Your task to perform on an android device: Search for Italian restaurants on Maps Image 0: 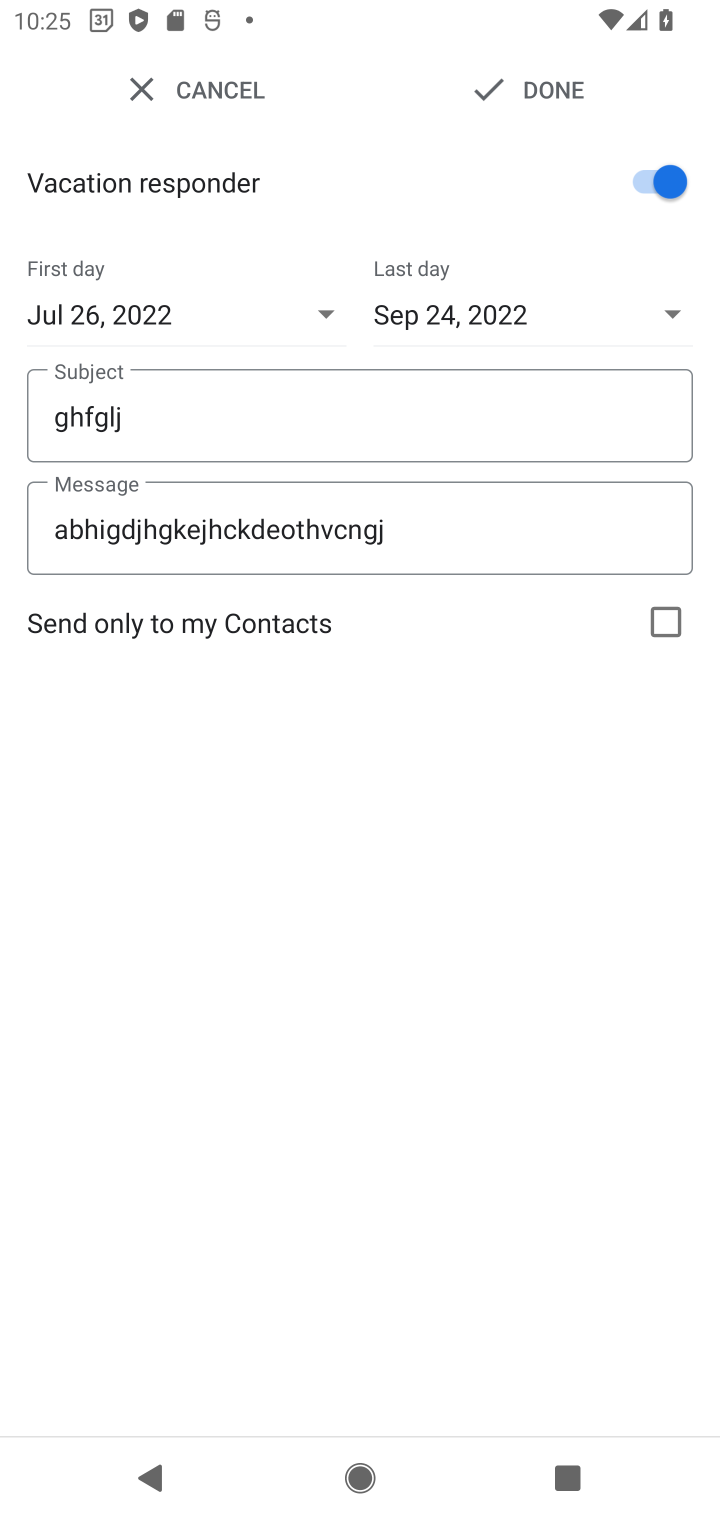
Step 0: press home button
Your task to perform on an android device: Search for Italian restaurants on Maps Image 1: 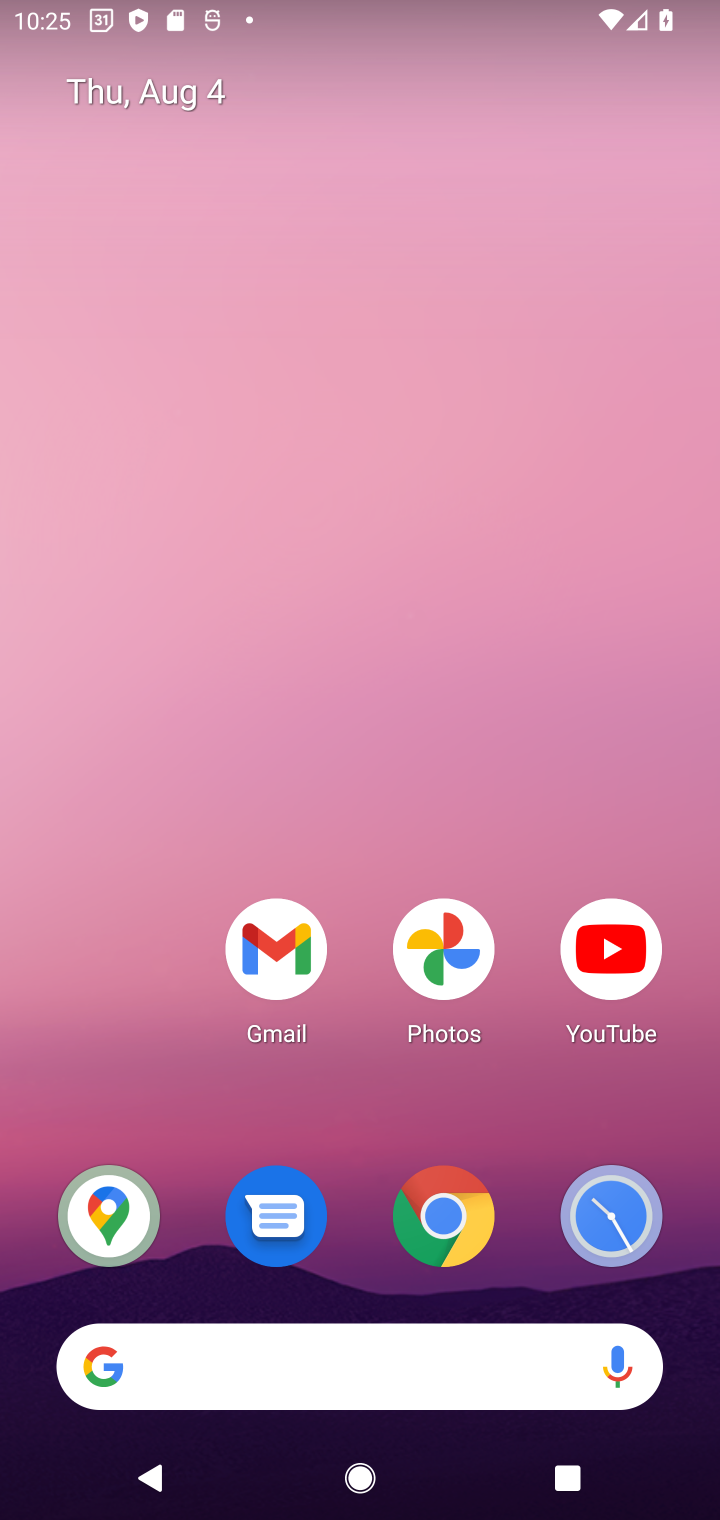
Step 1: click (110, 1203)
Your task to perform on an android device: Search for Italian restaurants on Maps Image 2: 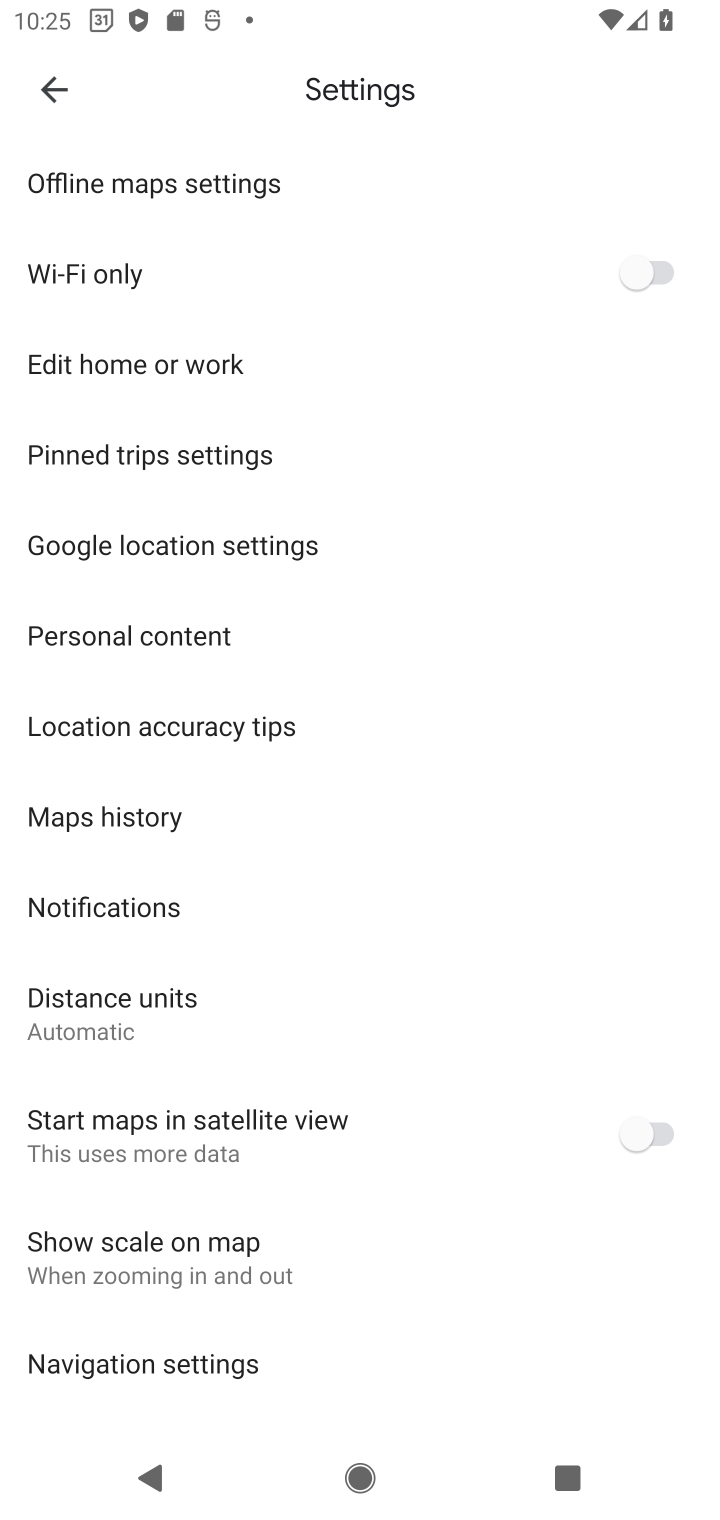
Step 2: click (60, 97)
Your task to perform on an android device: Search for Italian restaurants on Maps Image 3: 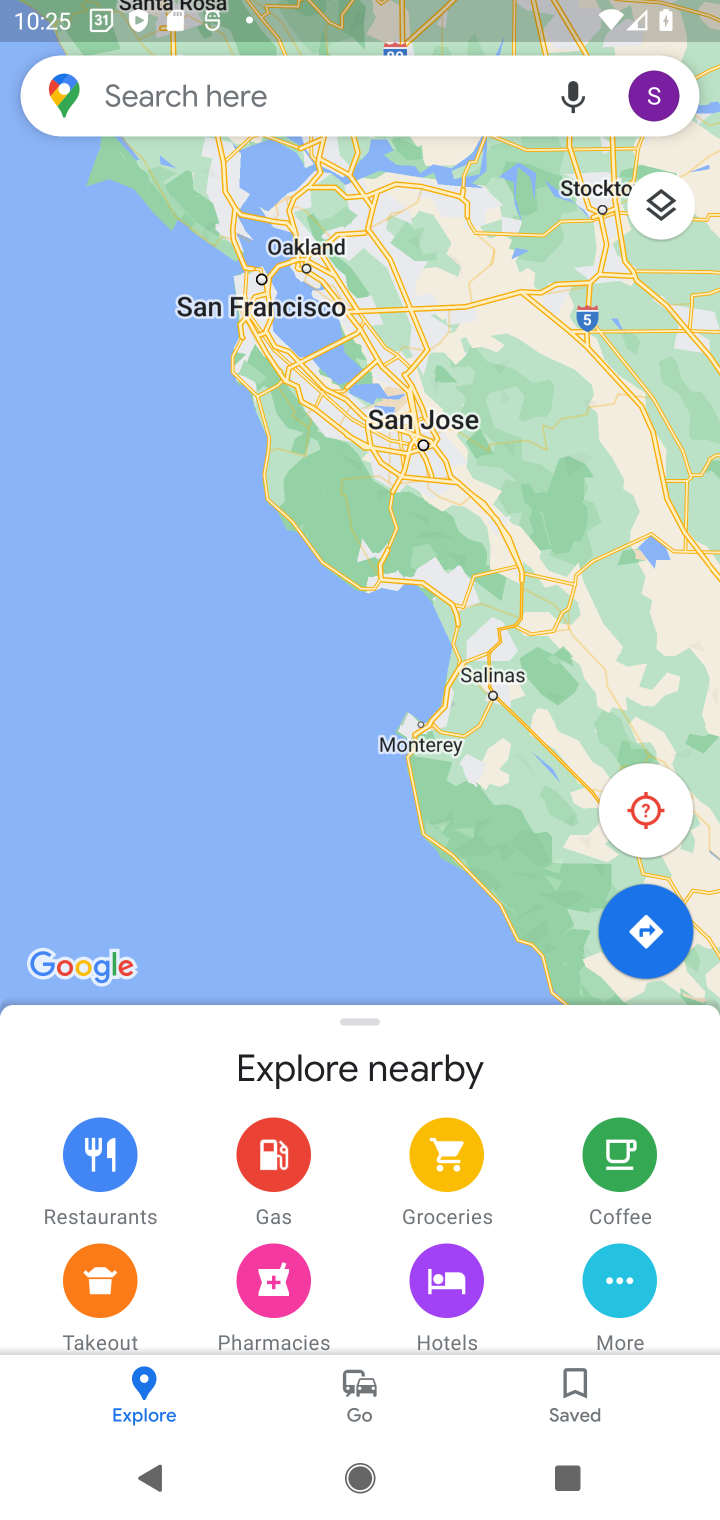
Step 3: click (222, 103)
Your task to perform on an android device: Search for Italian restaurants on Maps Image 4: 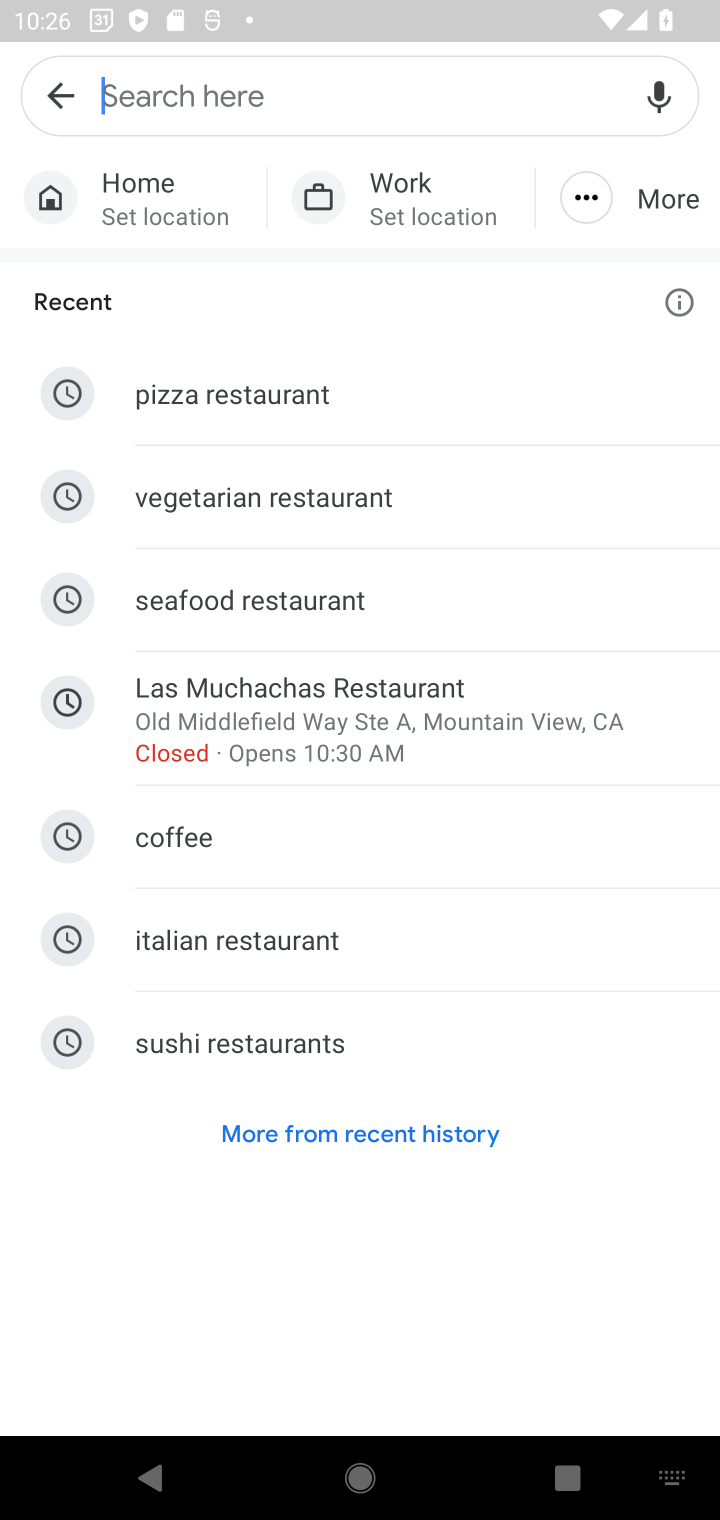
Step 4: type "Italian restaurants"
Your task to perform on an android device: Search for Italian restaurants on Maps Image 5: 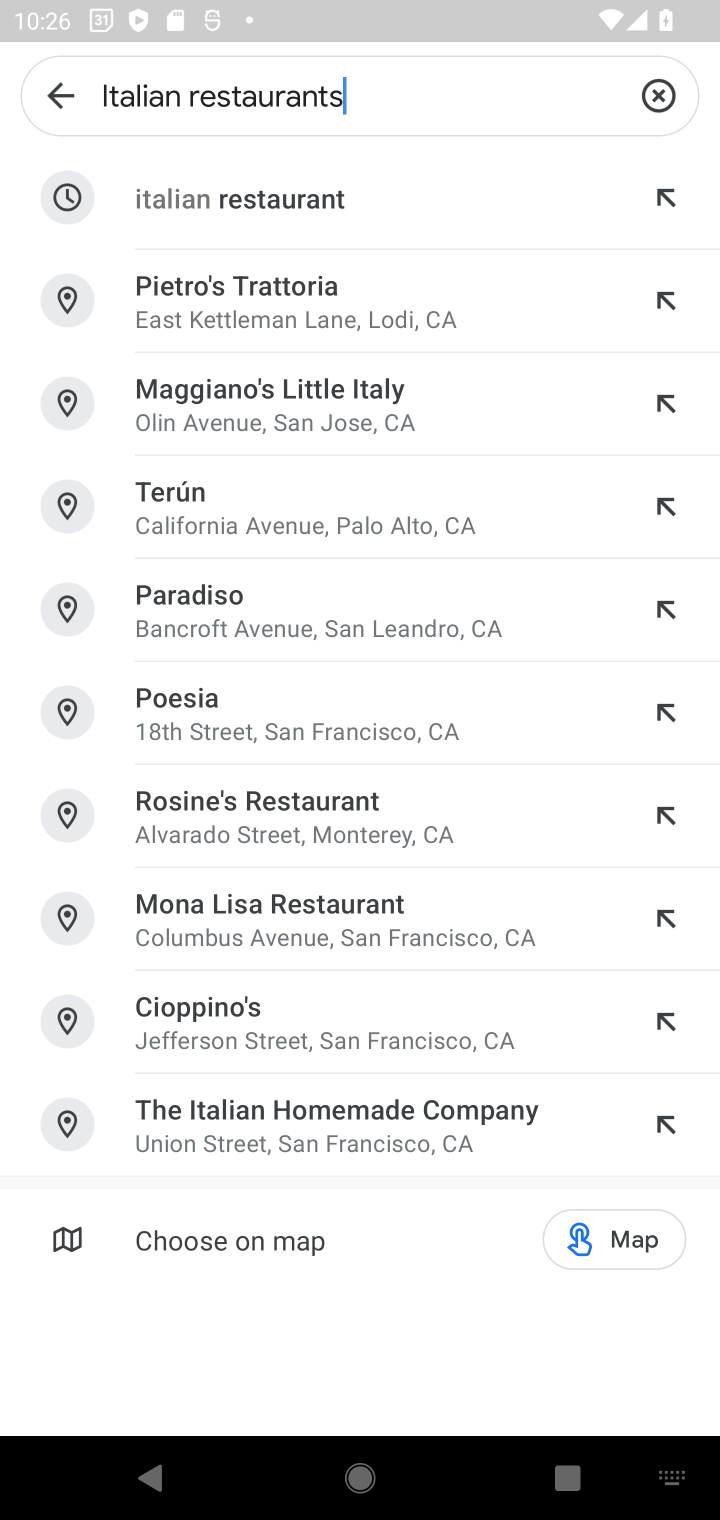
Step 5: click (301, 194)
Your task to perform on an android device: Search for Italian restaurants on Maps Image 6: 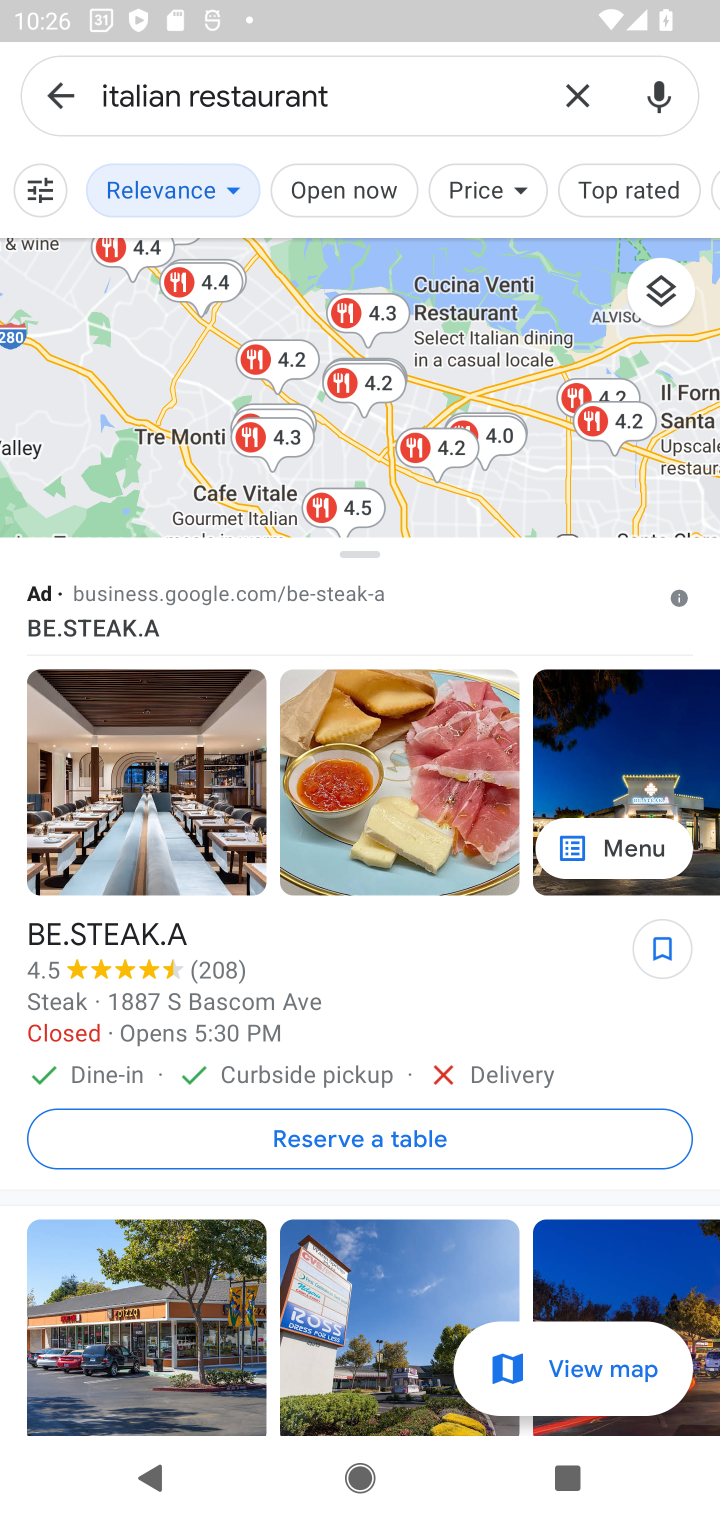
Step 6: task complete